Your task to perform on an android device: change timer sound Image 0: 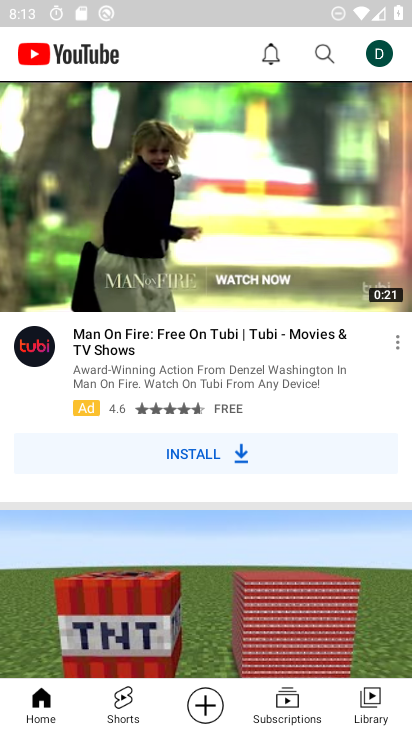
Step 0: press home button
Your task to perform on an android device: change timer sound Image 1: 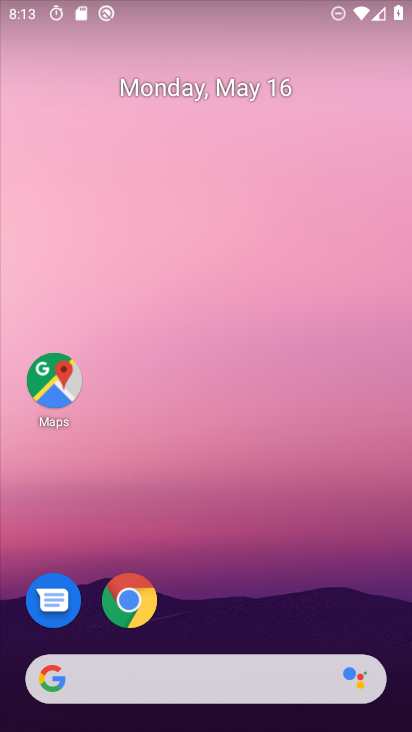
Step 1: drag from (198, 685) to (333, 173)
Your task to perform on an android device: change timer sound Image 2: 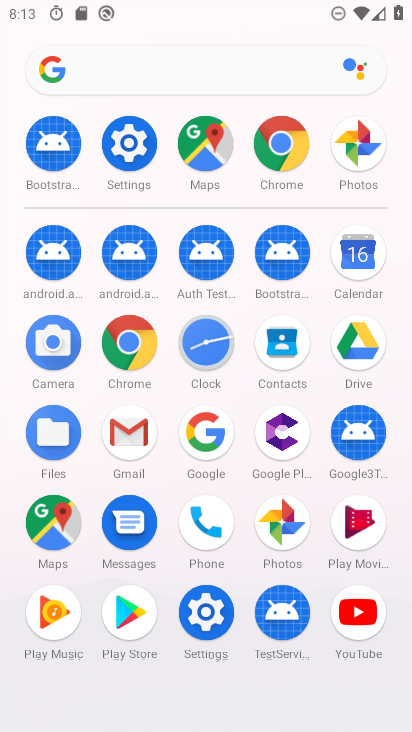
Step 2: click (211, 347)
Your task to perform on an android device: change timer sound Image 3: 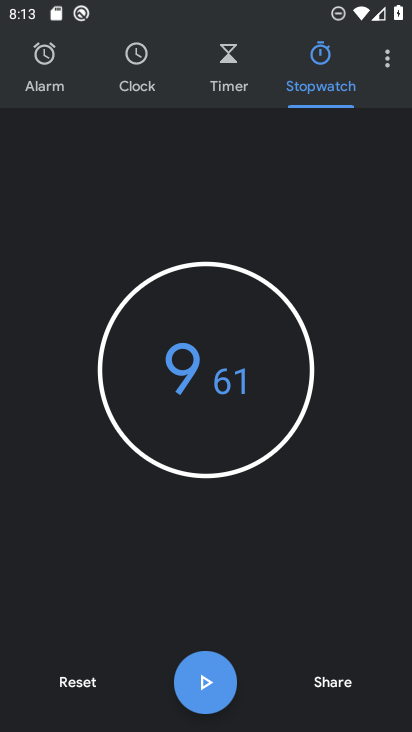
Step 3: click (390, 66)
Your task to perform on an android device: change timer sound Image 4: 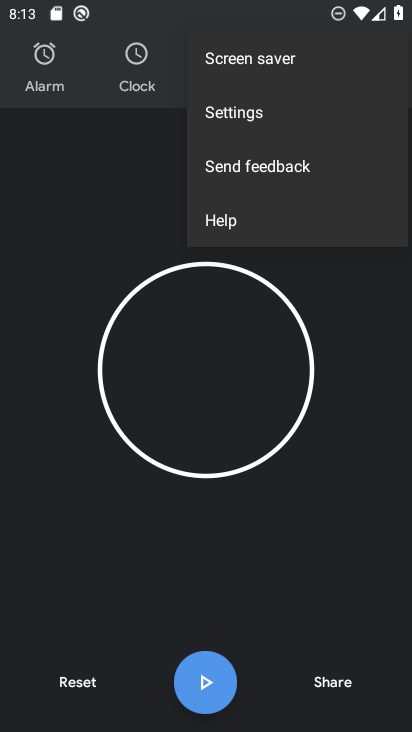
Step 4: click (245, 113)
Your task to perform on an android device: change timer sound Image 5: 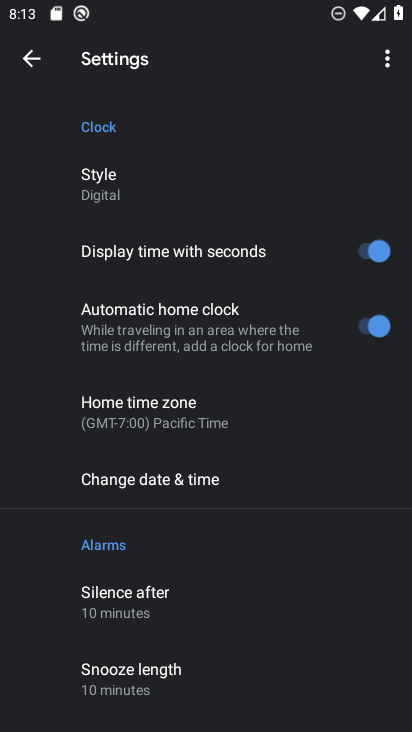
Step 5: drag from (210, 640) to (382, 90)
Your task to perform on an android device: change timer sound Image 6: 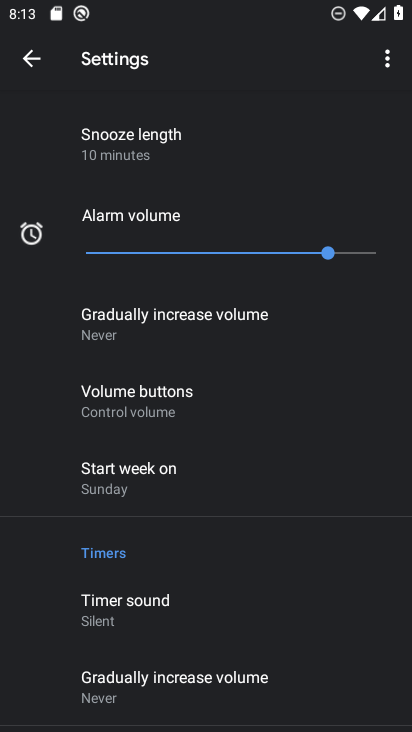
Step 6: click (134, 606)
Your task to perform on an android device: change timer sound Image 7: 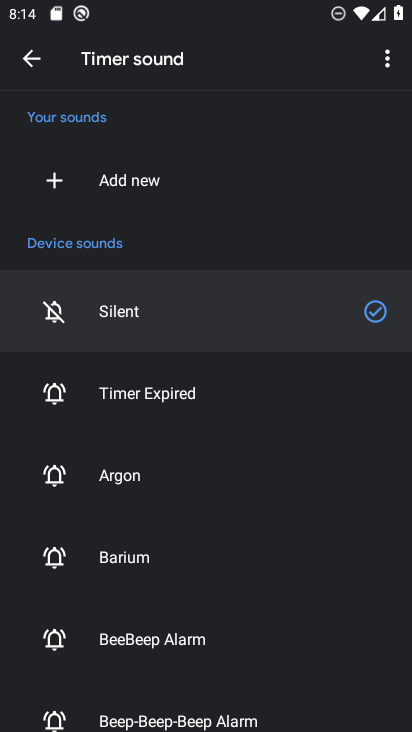
Step 7: click (130, 481)
Your task to perform on an android device: change timer sound Image 8: 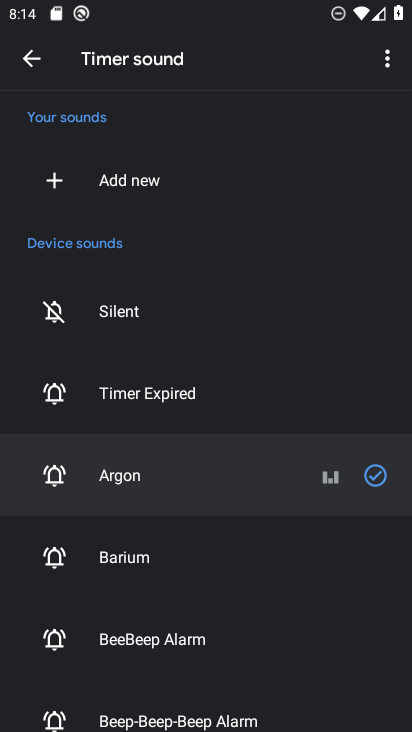
Step 8: task complete